Your task to perform on an android device: Open the stopwatch Image 0: 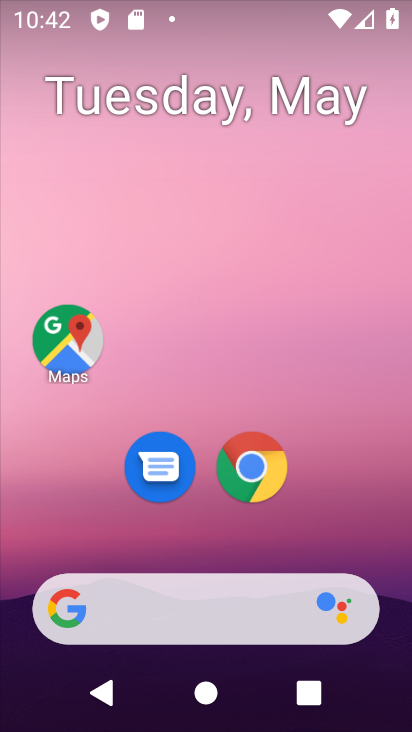
Step 0: click (83, 327)
Your task to perform on an android device: Open the stopwatch Image 1: 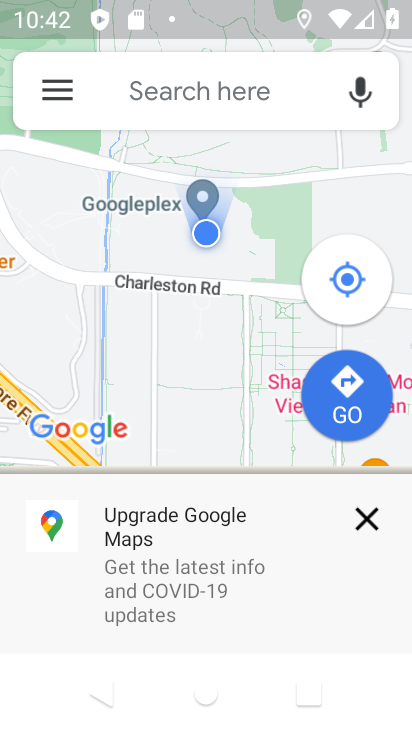
Step 1: click (375, 513)
Your task to perform on an android device: Open the stopwatch Image 2: 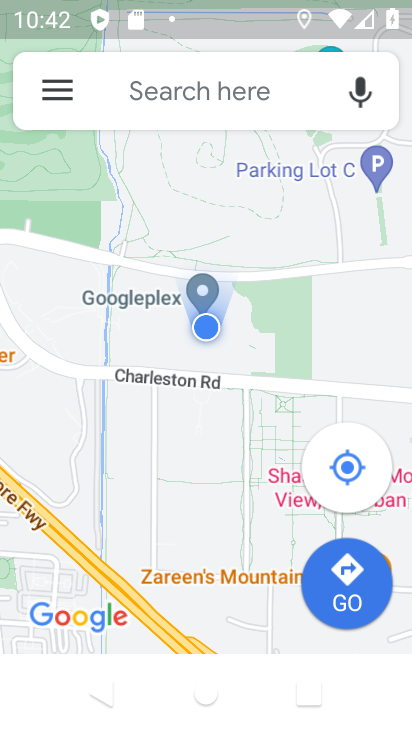
Step 2: press home button
Your task to perform on an android device: Open the stopwatch Image 3: 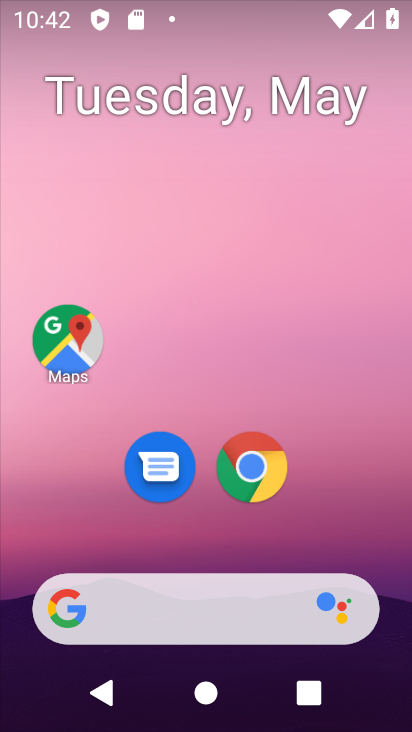
Step 3: drag from (402, 585) to (266, 215)
Your task to perform on an android device: Open the stopwatch Image 4: 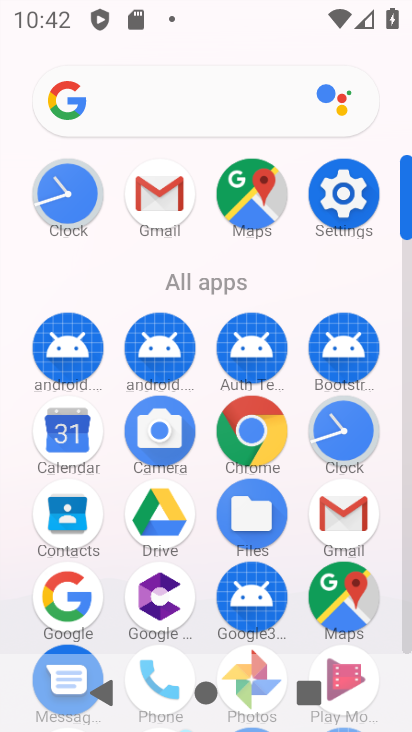
Step 4: click (370, 423)
Your task to perform on an android device: Open the stopwatch Image 5: 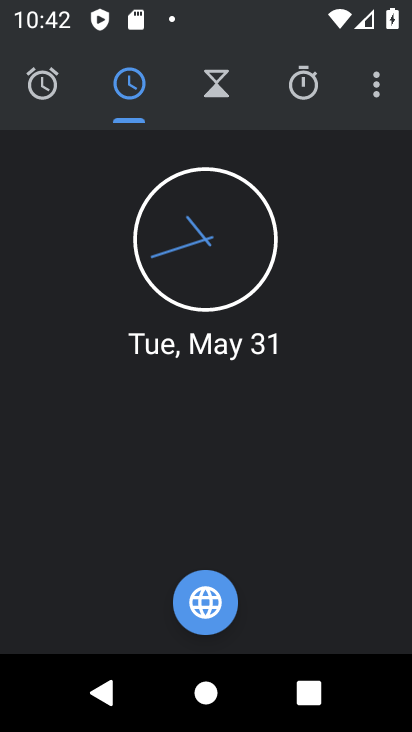
Step 5: click (296, 86)
Your task to perform on an android device: Open the stopwatch Image 6: 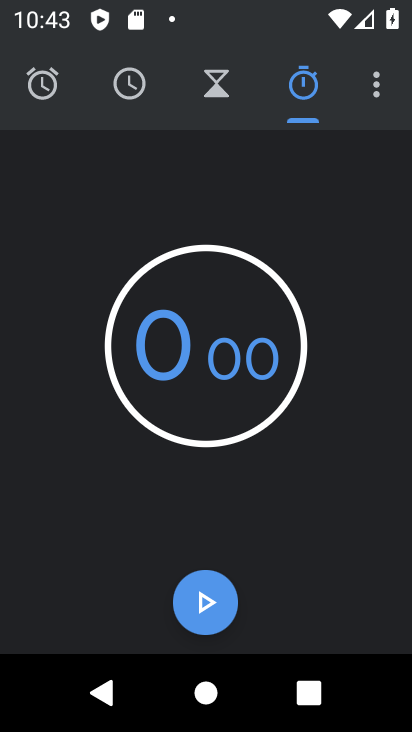
Step 6: task complete